Your task to perform on an android device: turn on notifications settings in the gmail app Image 0: 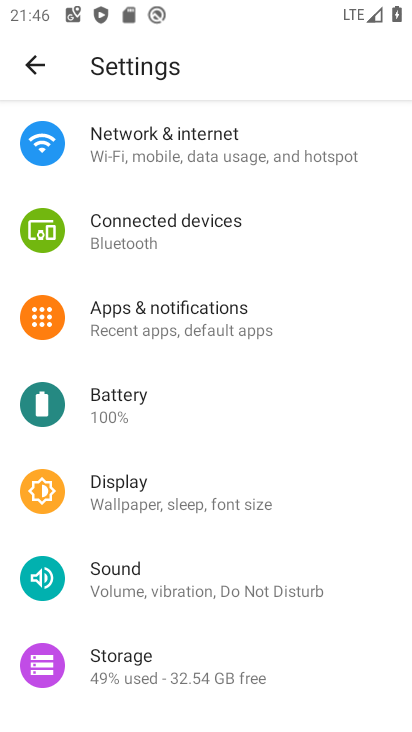
Step 0: press home button
Your task to perform on an android device: turn on notifications settings in the gmail app Image 1: 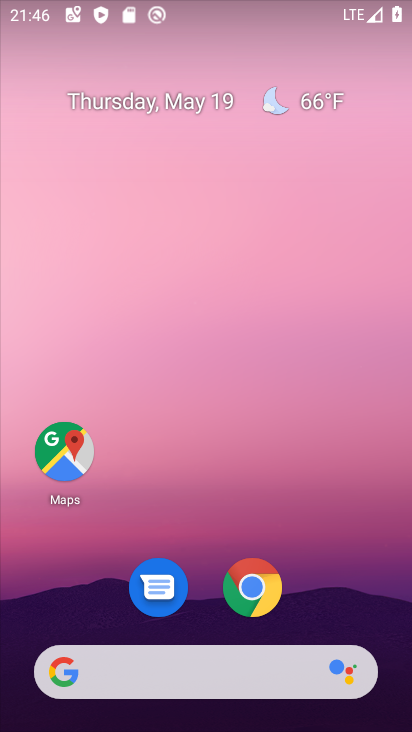
Step 1: drag from (262, 654) to (262, 151)
Your task to perform on an android device: turn on notifications settings in the gmail app Image 2: 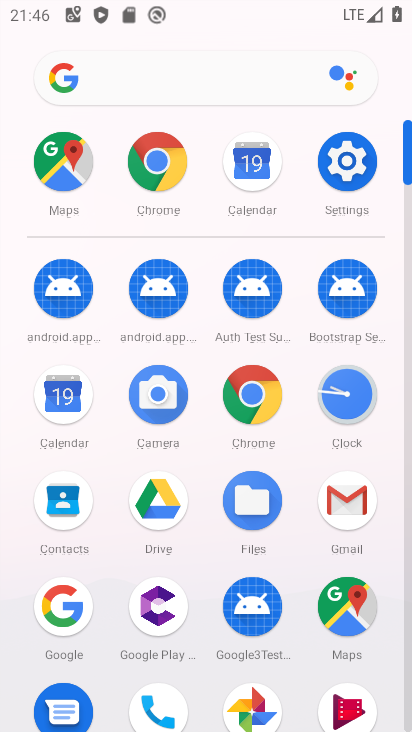
Step 2: click (342, 491)
Your task to perform on an android device: turn on notifications settings in the gmail app Image 3: 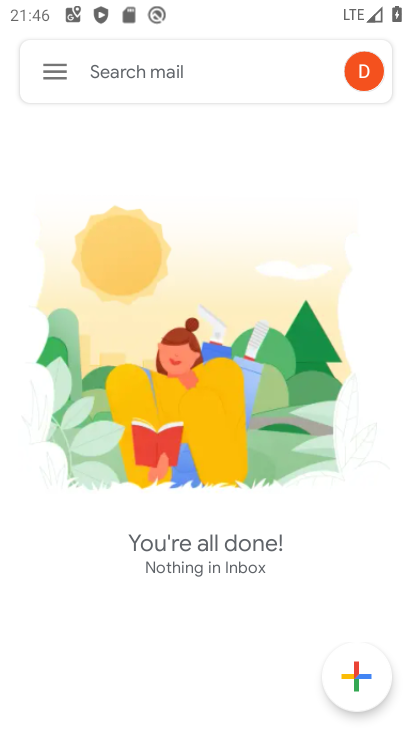
Step 3: click (57, 70)
Your task to perform on an android device: turn on notifications settings in the gmail app Image 4: 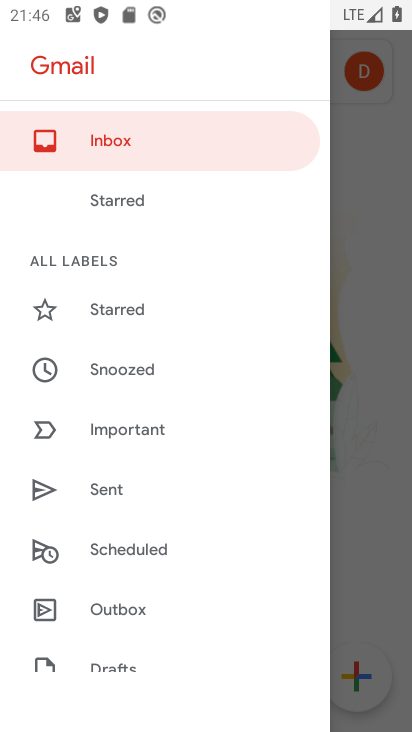
Step 4: drag from (177, 525) to (227, 268)
Your task to perform on an android device: turn on notifications settings in the gmail app Image 5: 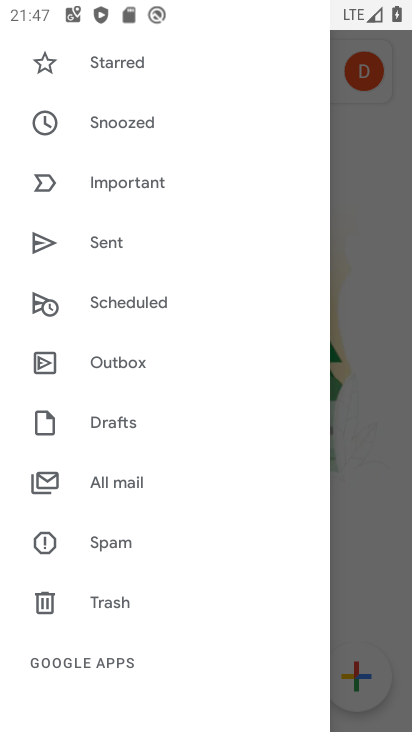
Step 5: drag from (153, 554) to (151, 359)
Your task to perform on an android device: turn on notifications settings in the gmail app Image 6: 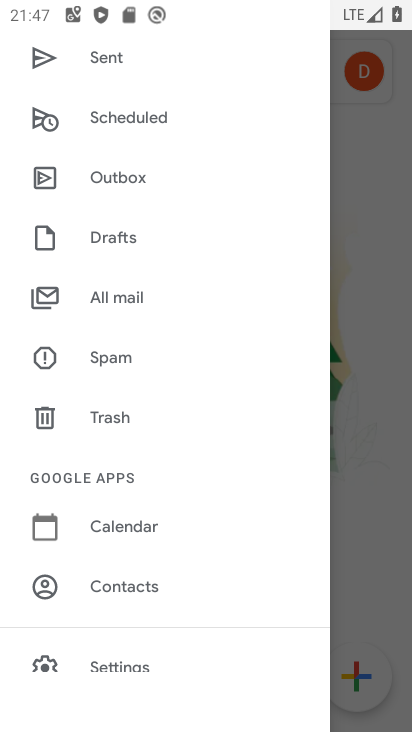
Step 6: drag from (122, 466) to (171, 276)
Your task to perform on an android device: turn on notifications settings in the gmail app Image 7: 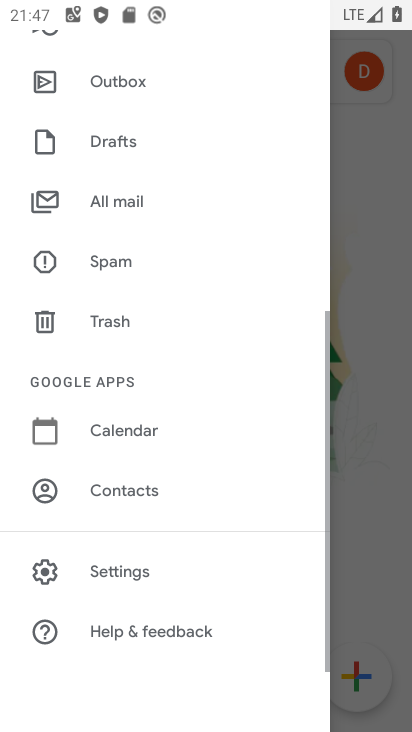
Step 7: click (121, 662)
Your task to perform on an android device: turn on notifications settings in the gmail app Image 8: 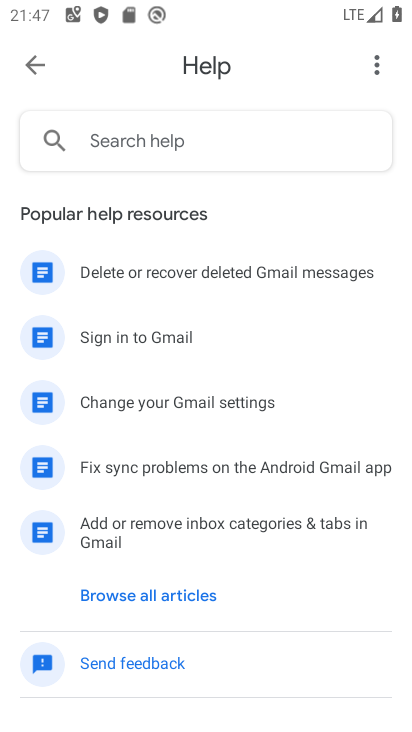
Step 8: click (28, 58)
Your task to perform on an android device: turn on notifications settings in the gmail app Image 9: 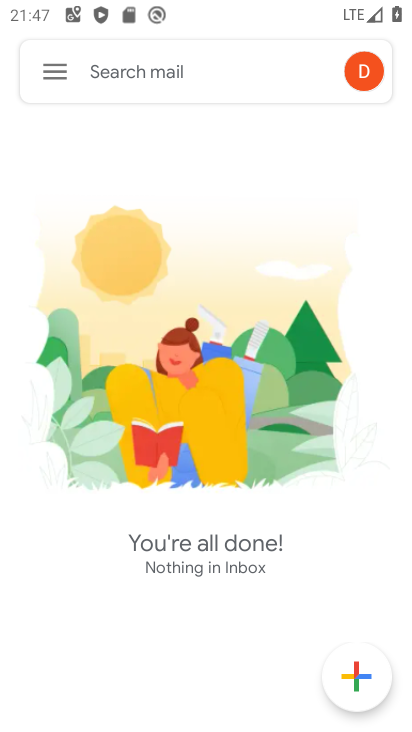
Step 9: click (47, 76)
Your task to perform on an android device: turn on notifications settings in the gmail app Image 10: 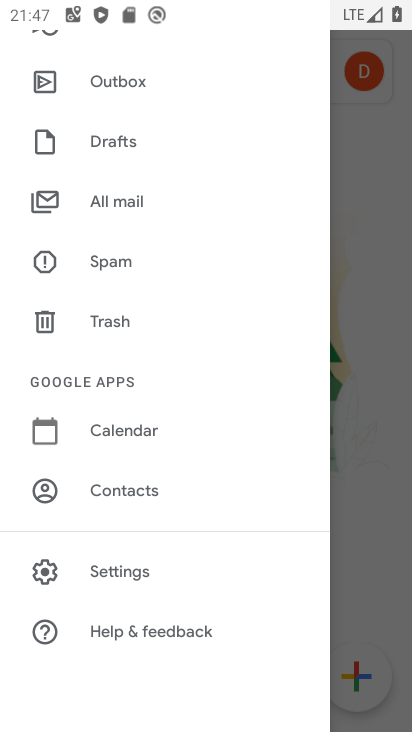
Step 10: click (125, 569)
Your task to perform on an android device: turn on notifications settings in the gmail app Image 11: 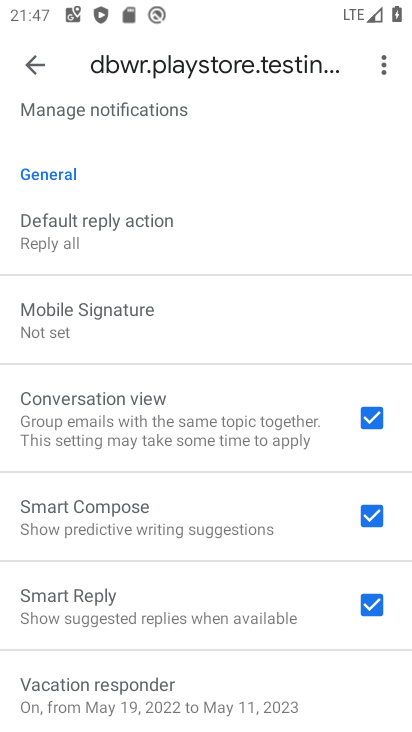
Step 11: drag from (143, 270) to (217, 565)
Your task to perform on an android device: turn on notifications settings in the gmail app Image 12: 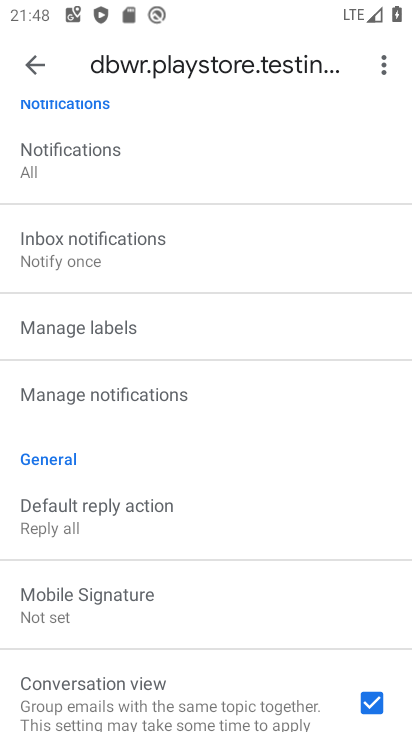
Step 12: click (86, 159)
Your task to perform on an android device: turn on notifications settings in the gmail app Image 13: 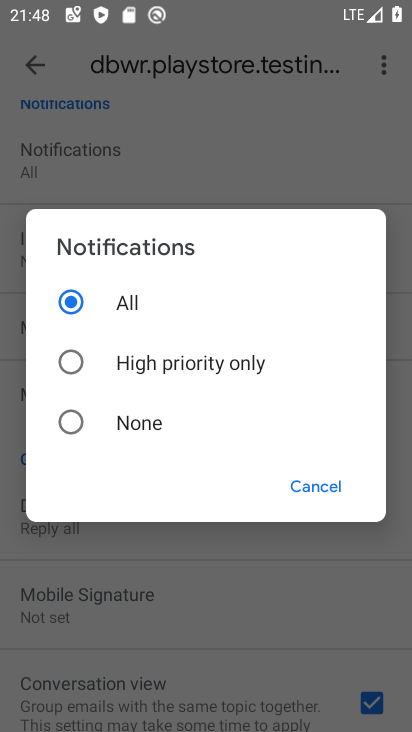
Step 13: task complete